Your task to perform on an android device: turn off translation in the chrome app Image 0: 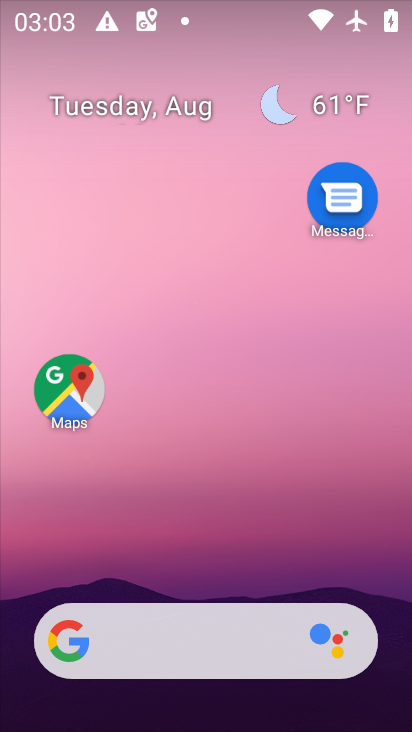
Step 0: drag from (211, 585) to (238, 0)
Your task to perform on an android device: turn off translation in the chrome app Image 1: 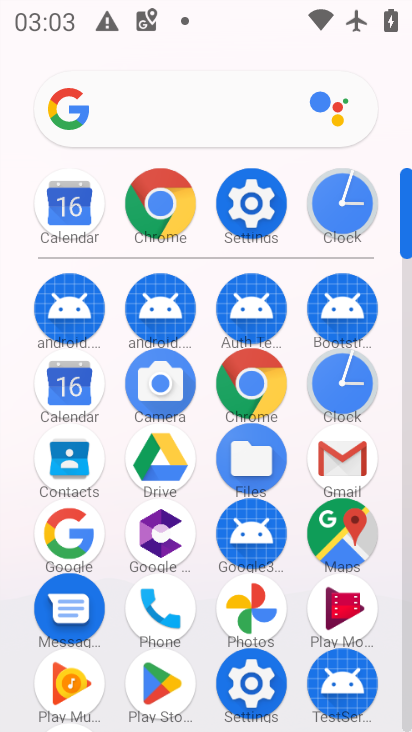
Step 1: click (177, 211)
Your task to perform on an android device: turn off translation in the chrome app Image 2: 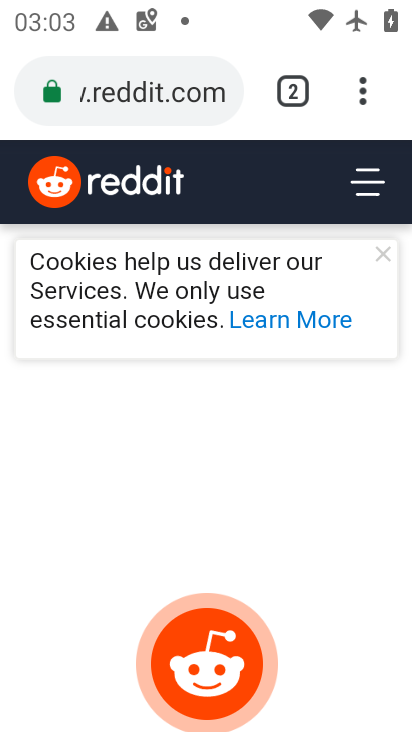
Step 2: click (378, 105)
Your task to perform on an android device: turn off translation in the chrome app Image 3: 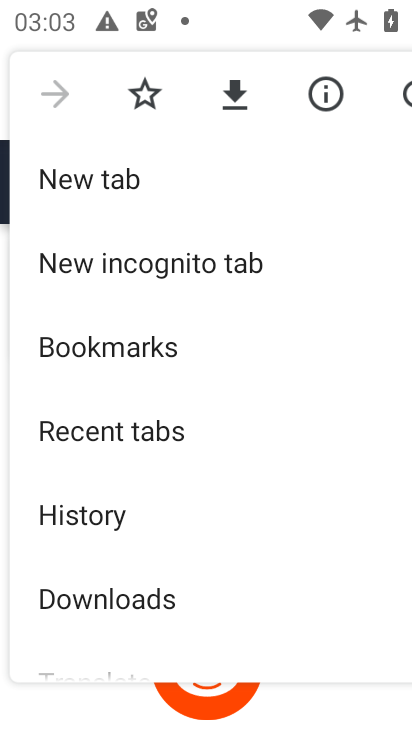
Step 3: drag from (166, 649) to (175, 336)
Your task to perform on an android device: turn off translation in the chrome app Image 4: 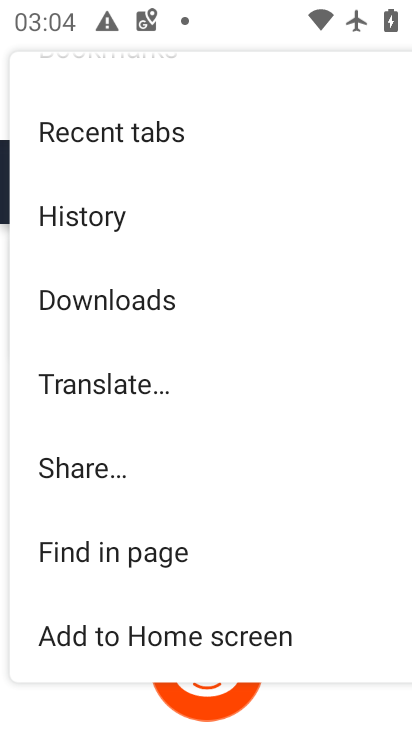
Step 4: click (151, 402)
Your task to perform on an android device: turn off translation in the chrome app Image 5: 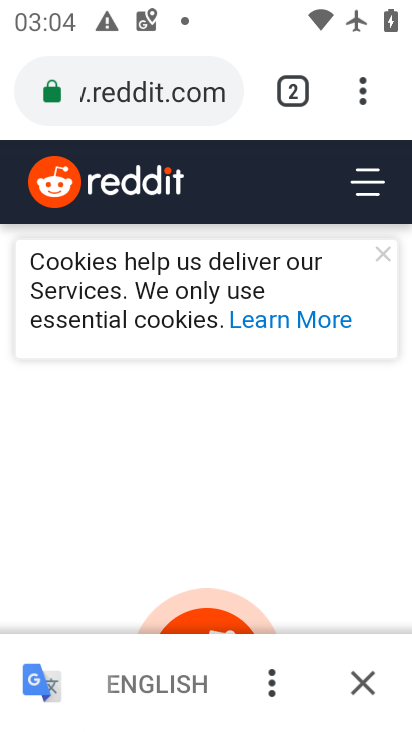
Step 5: task complete